Your task to perform on an android device: change your default location settings in chrome Image 0: 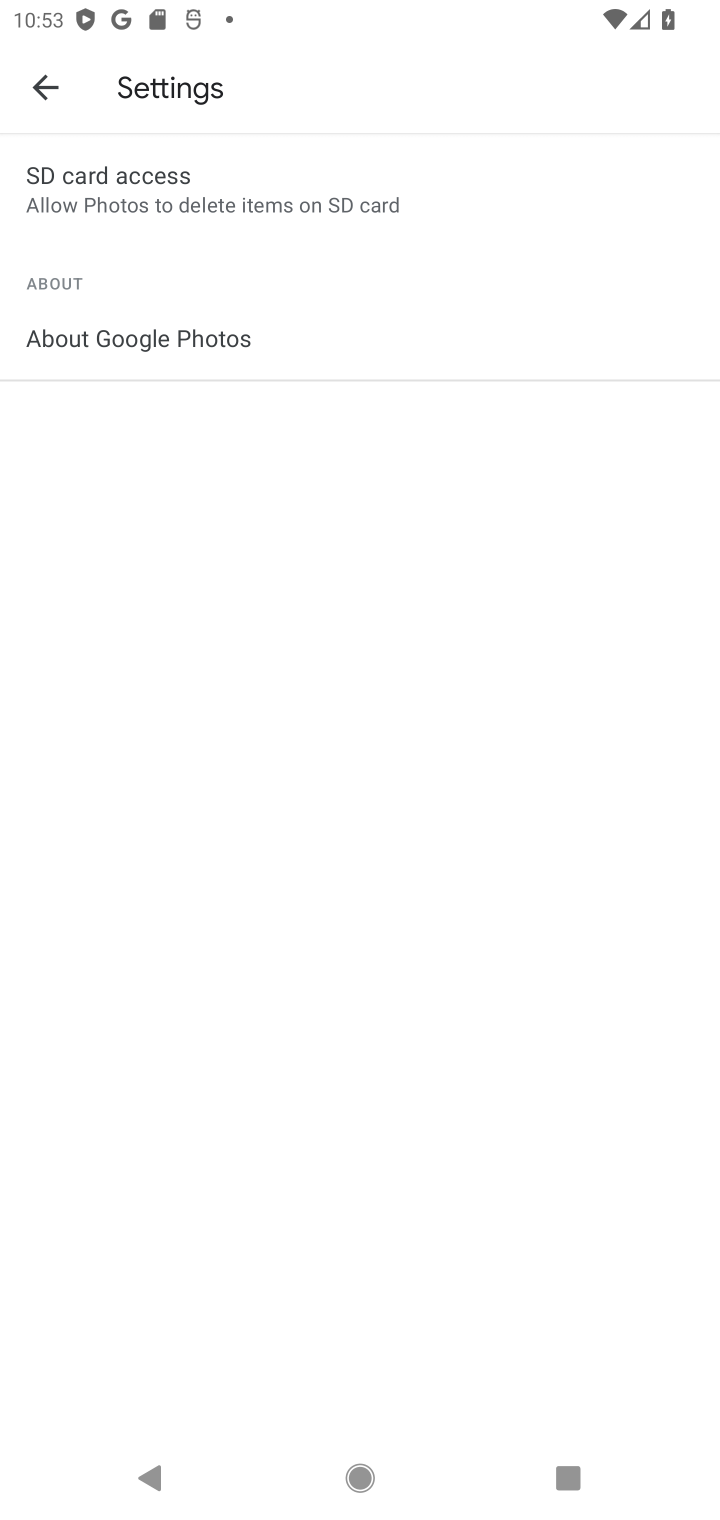
Step 0: press home button
Your task to perform on an android device: change your default location settings in chrome Image 1: 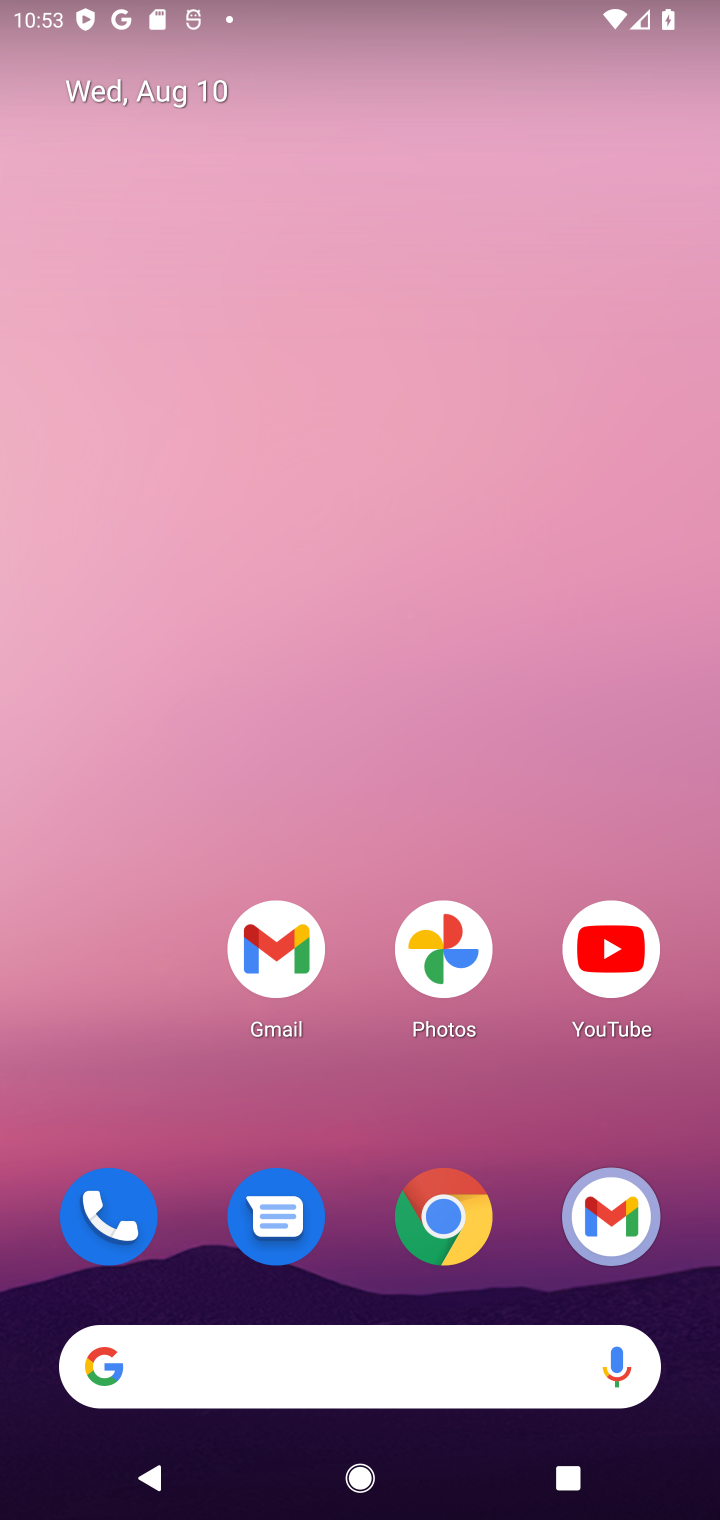
Step 1: drag from (23, 1271) to (542, 310)
Your task to perform on an android device: change your default location settings in chrome Image 2: 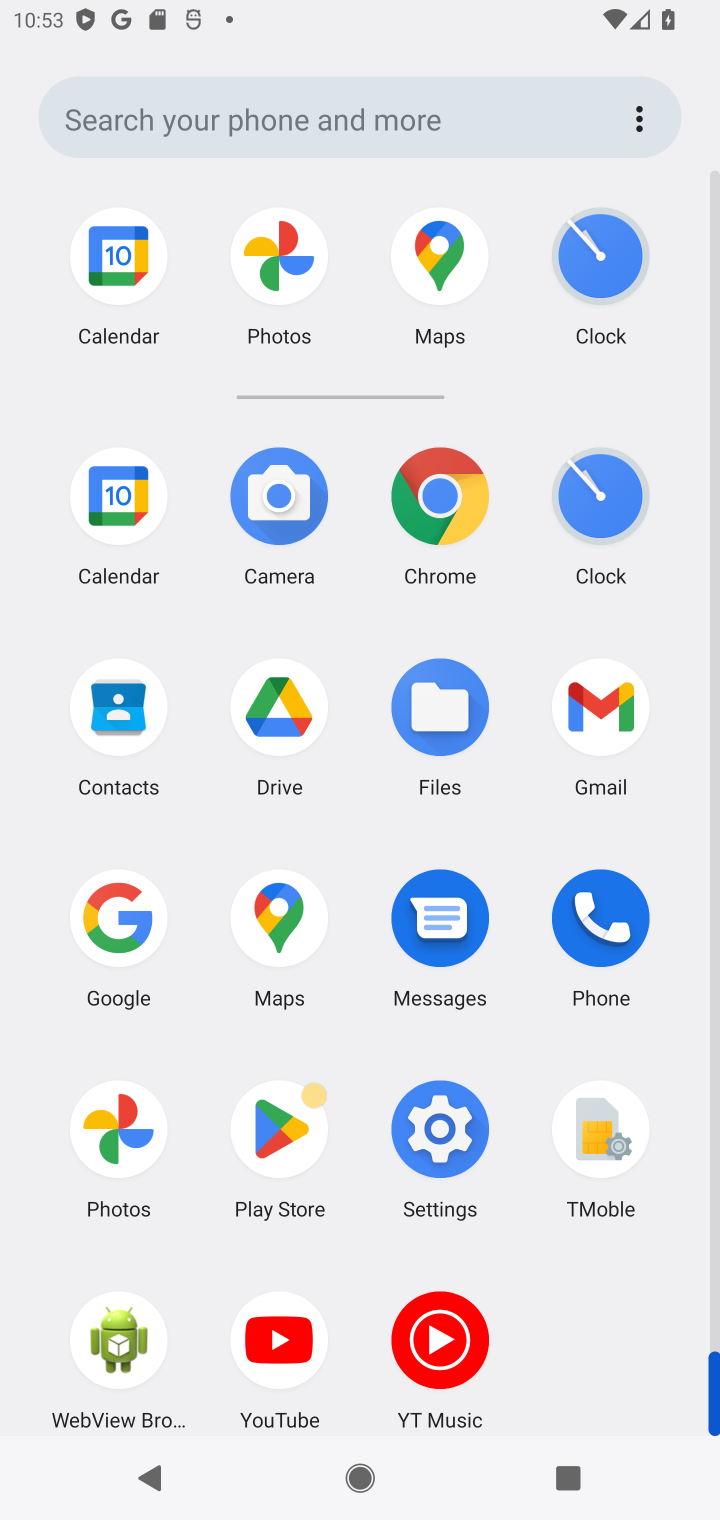
Step 2: click (434, 491)
Your task to perform on an android device: change your default location settings in chrome Image 3: 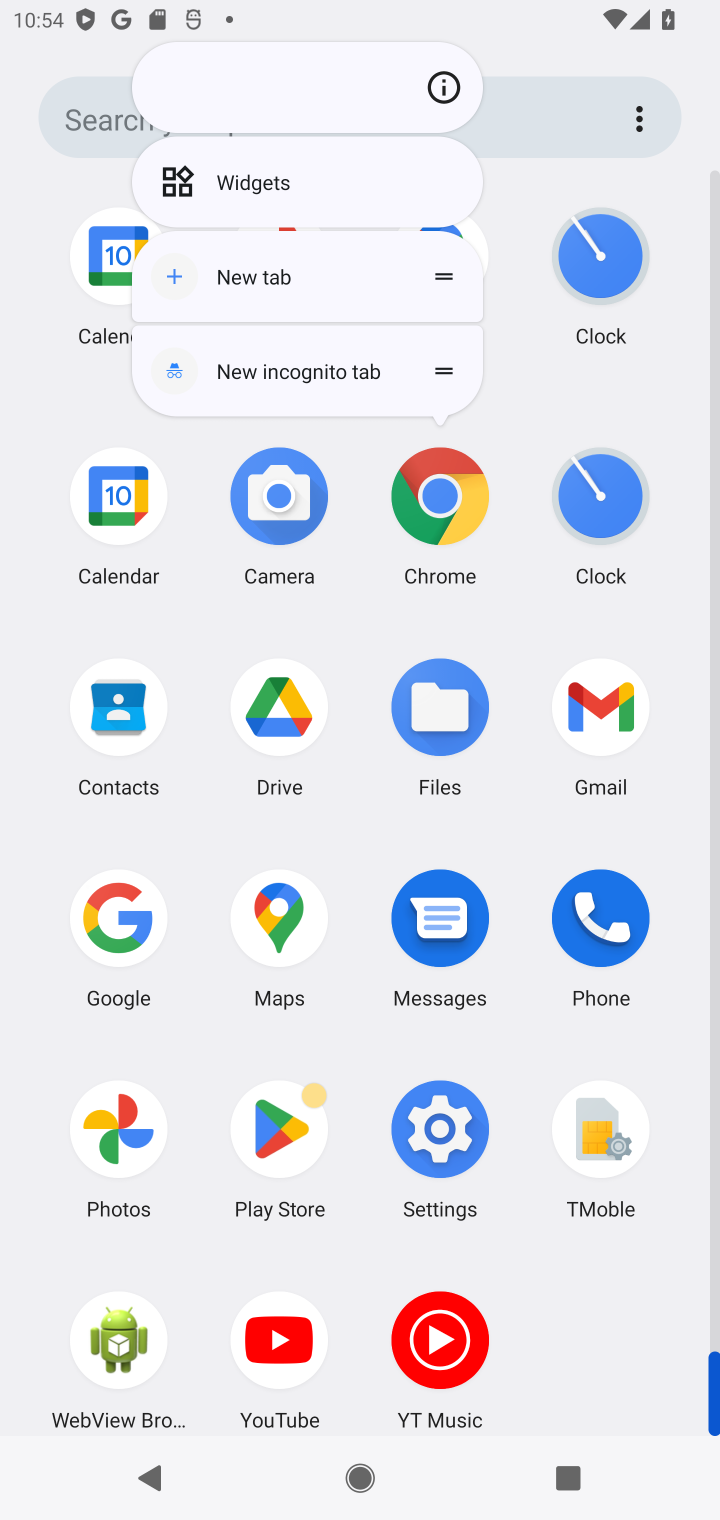
Step 3: click (442, 505)
Your task to perform on an android device: change your default location settings in chrome Image 4: 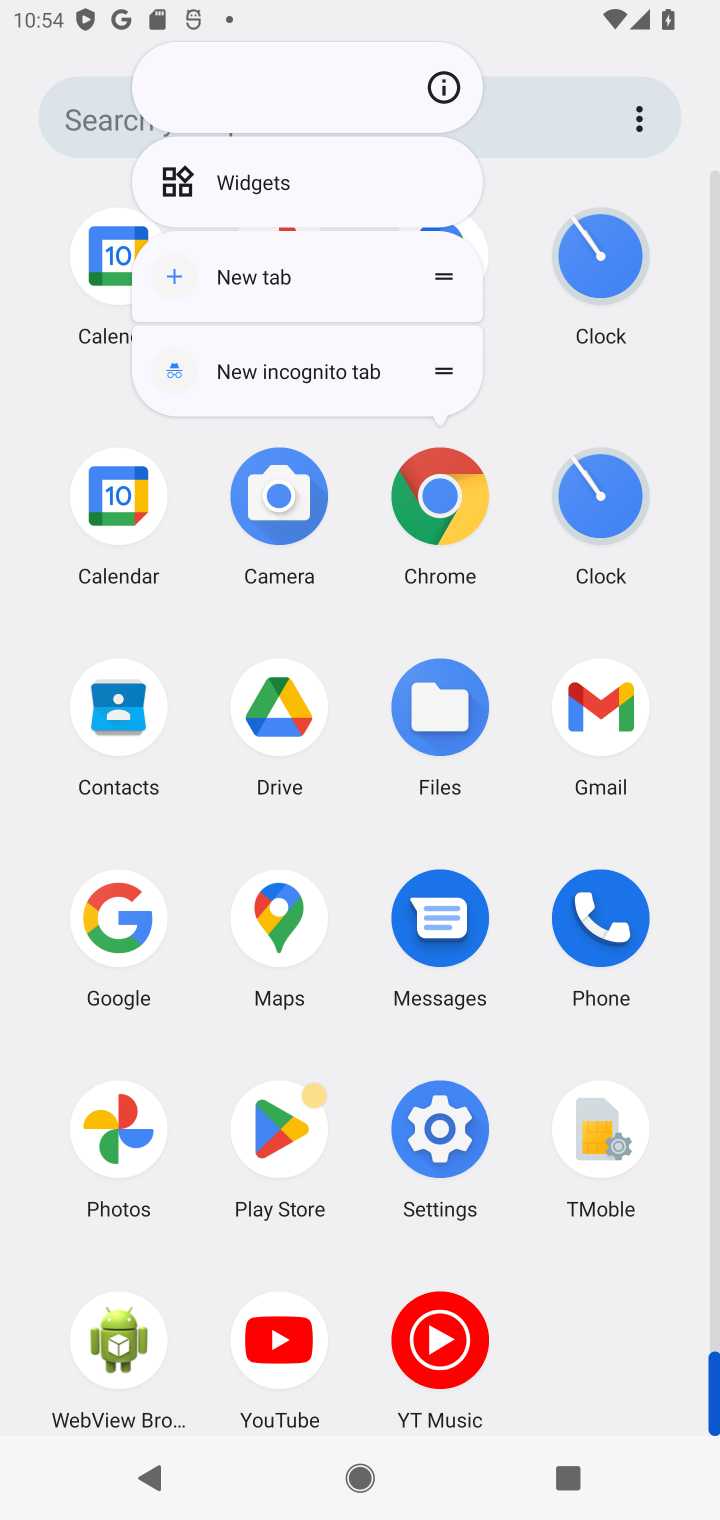
Step 4: click (442, 505)
Your task to perform on an android device: change your default location settings in chrome Image 5: 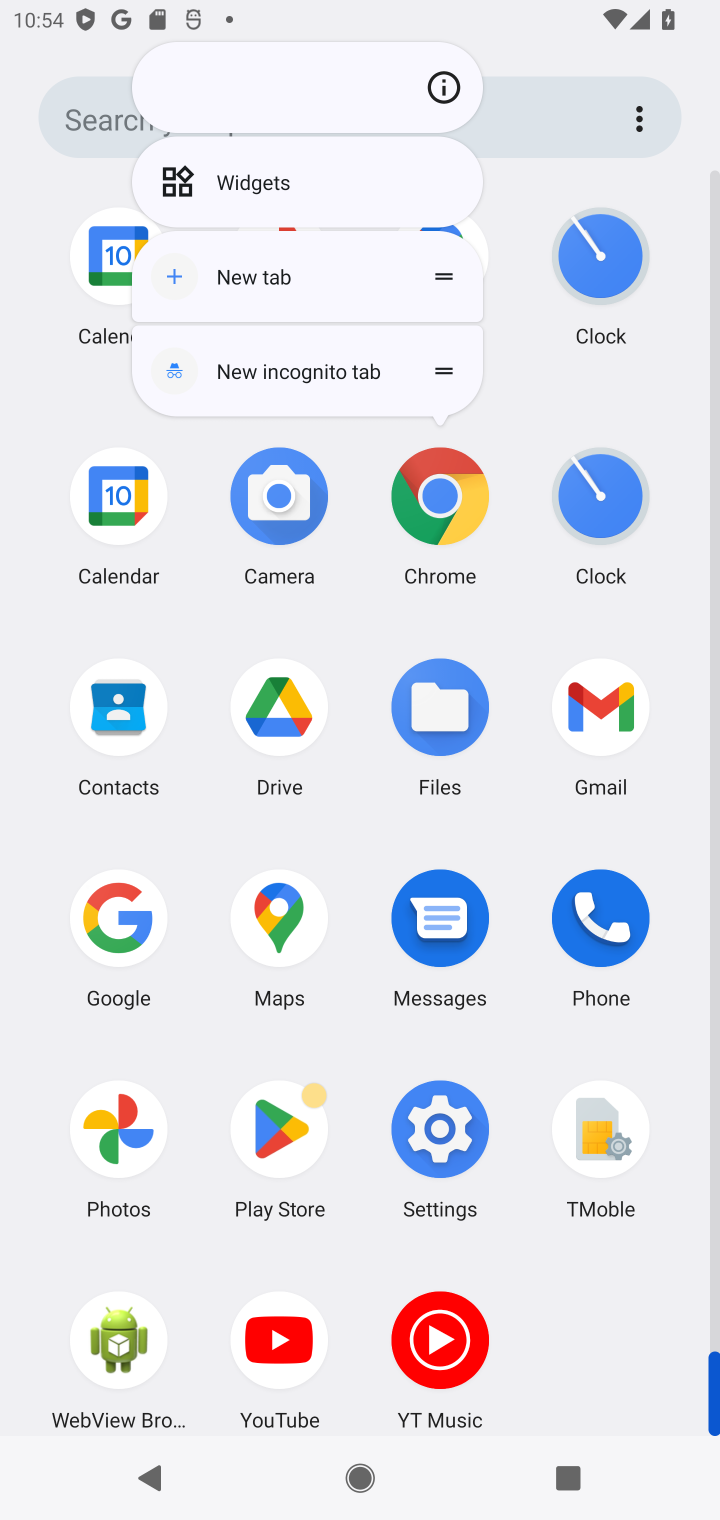
Step 5: click (476, 420)
Your task to perform on an android device: change your default location settings in chrome Image 6: 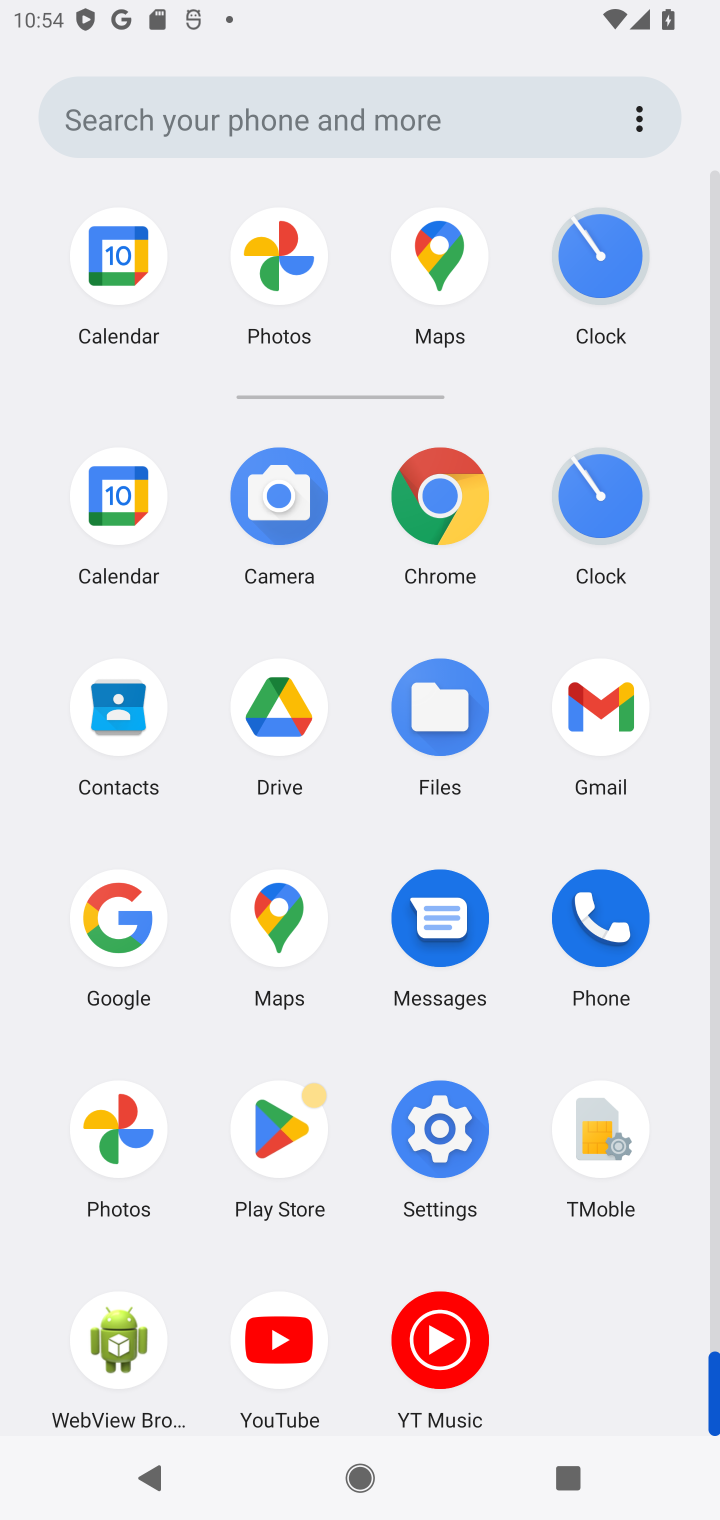
Step 6: click (465, 489)
Your task to perform on an android device: change your default location settings in chrome Image 7: 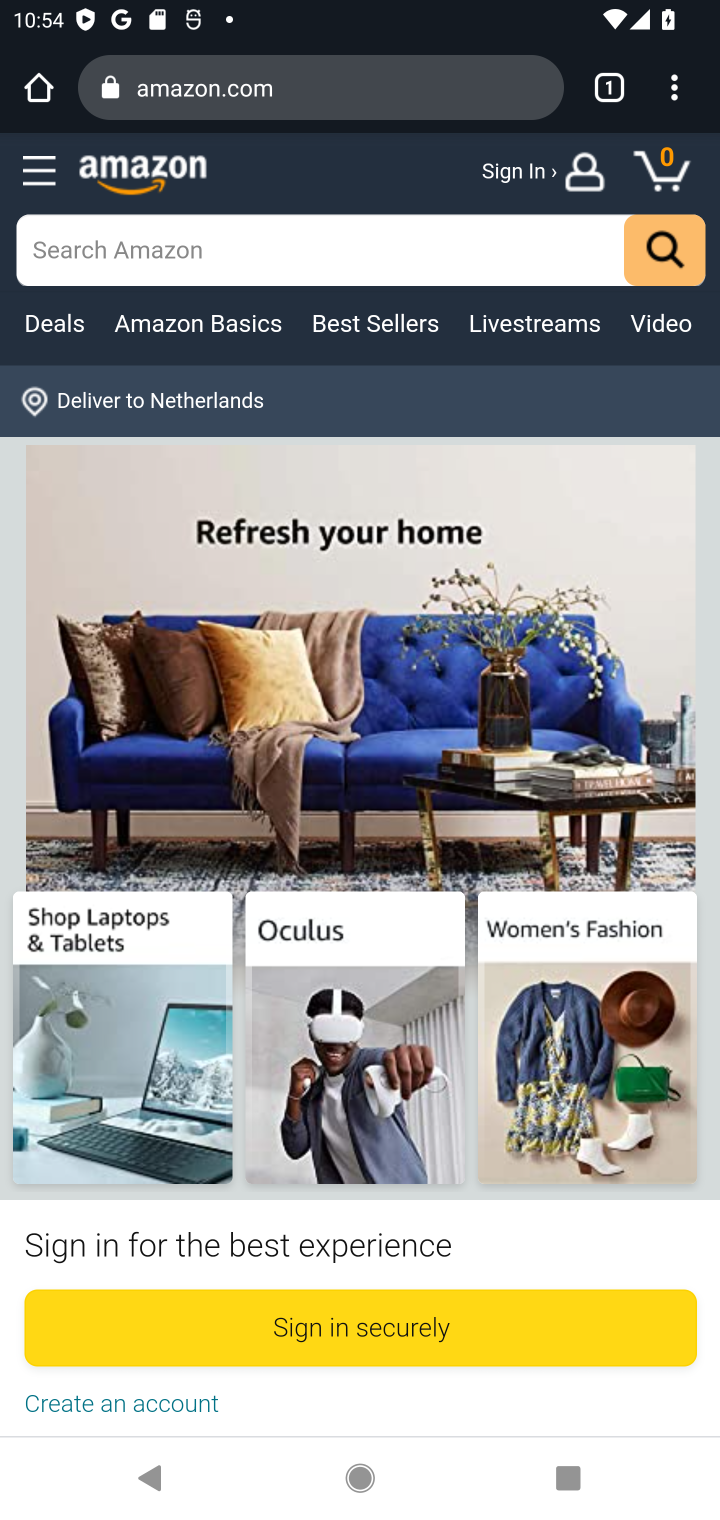
Step 7: click (672, 96)
Your task to perform on an android device: change your default location settings in chrome Image 8: 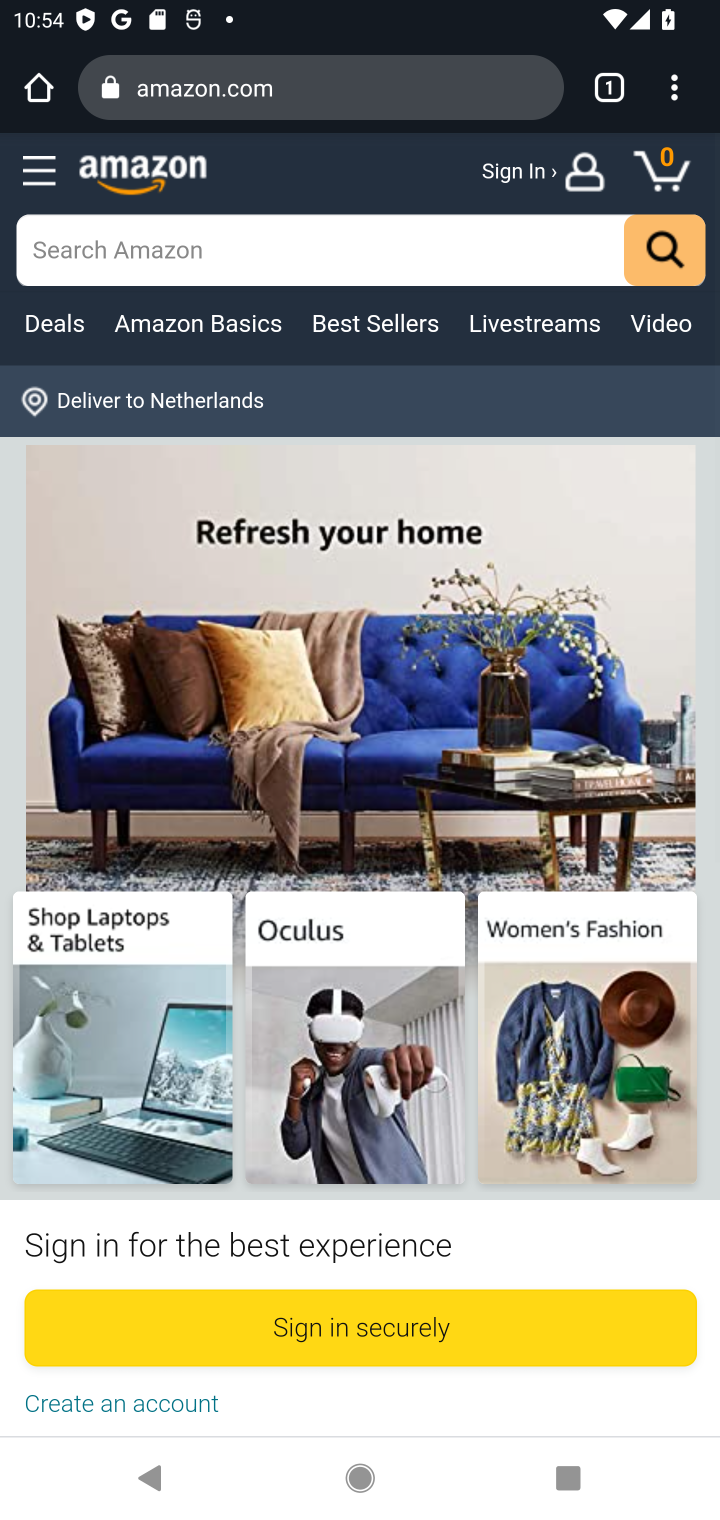
Step 8: click (672, 96)
Your task to perform on an android device: change your default location settings in chrome Image 9: 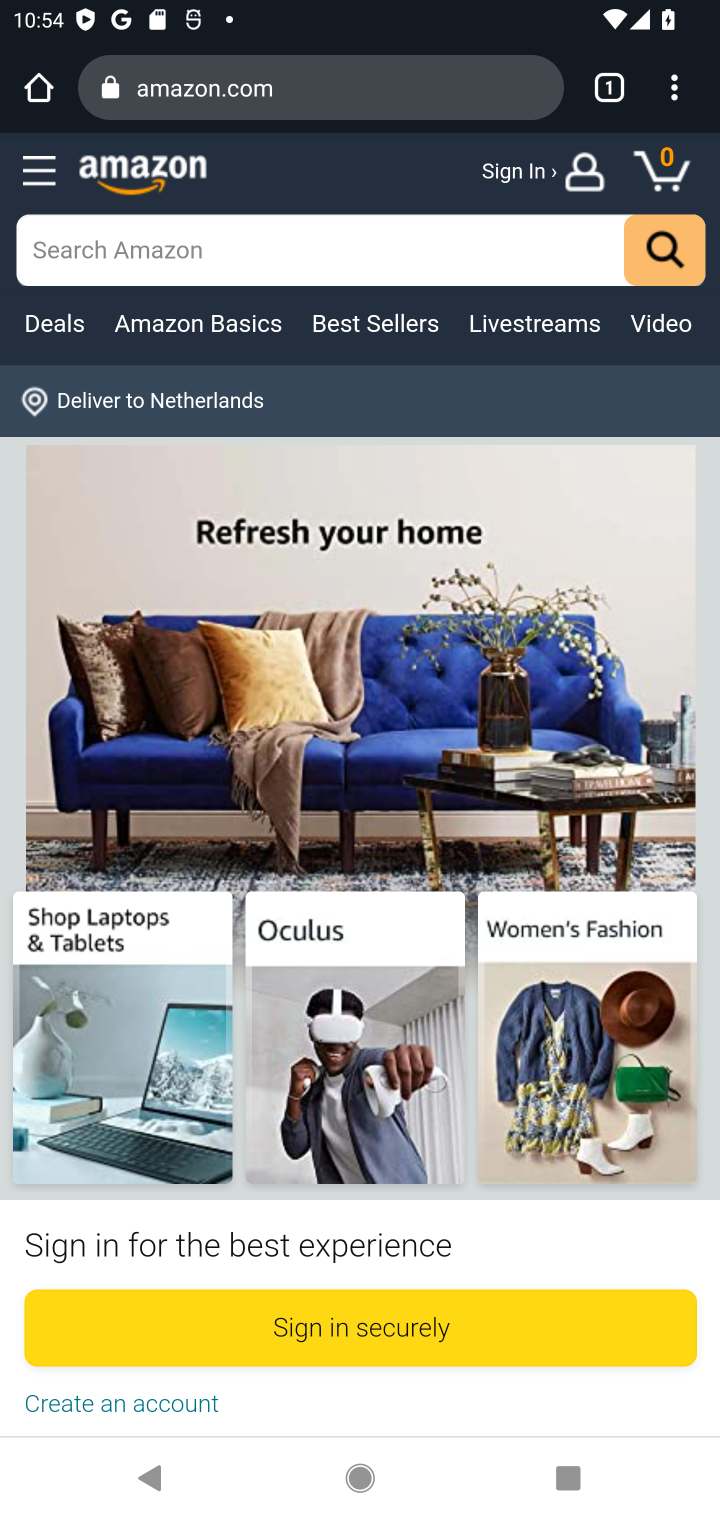
Step 9: click (674, 94)
Your task to perform on an android device: change your default location settings in chrome Image 10: 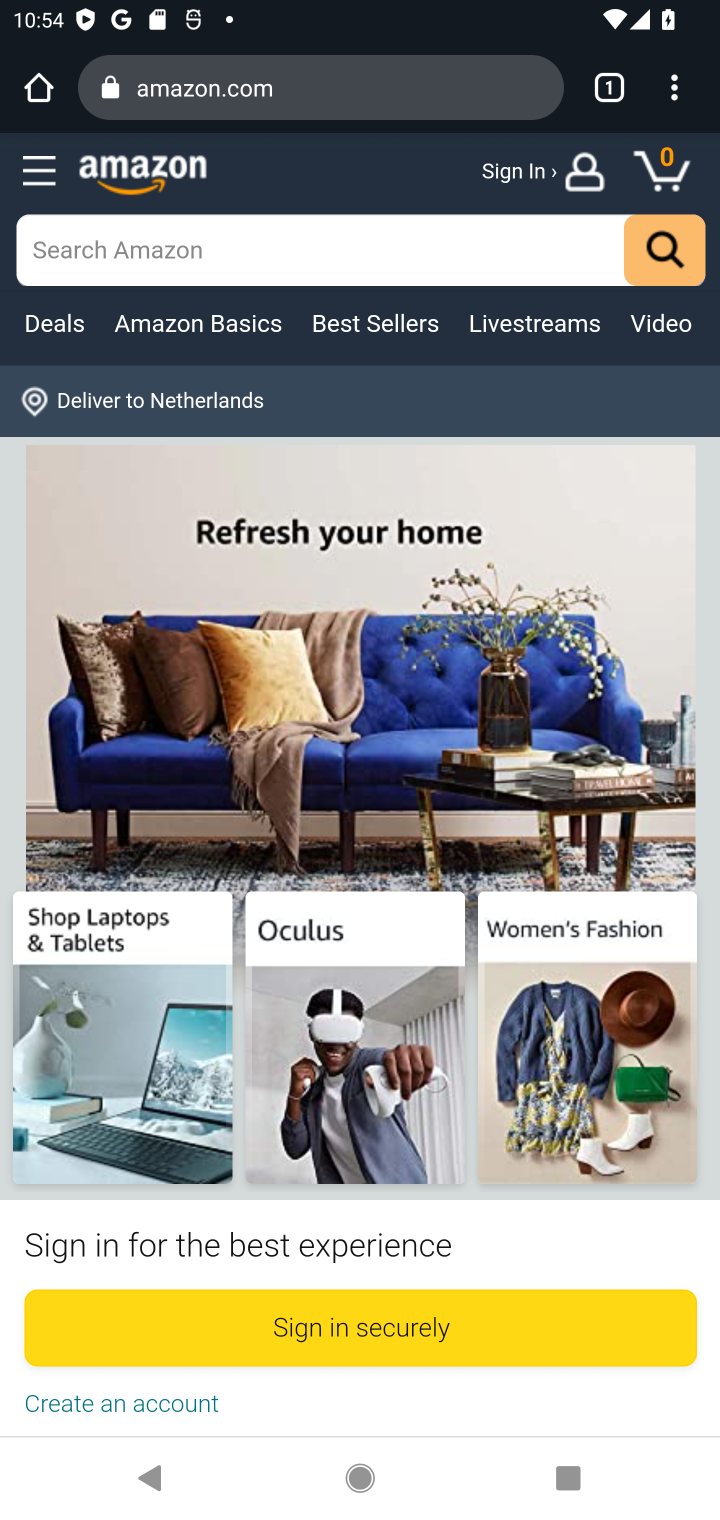
Step 10: click (674, 94)
Your task to perform on an android device: change your default location settings in chrome Image 11: 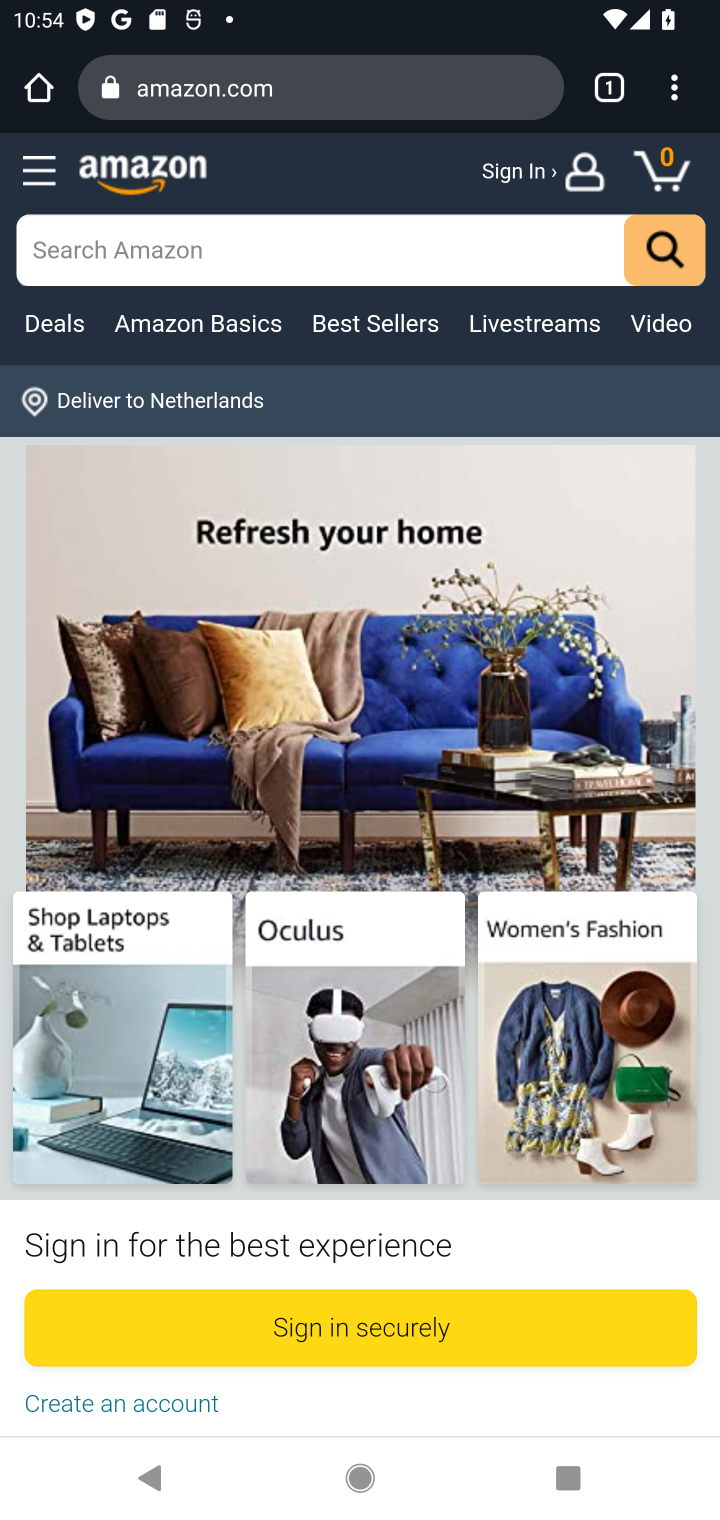
Step 11: click (681, 95)
Your task to perform on an android device: change your default location settings in chrome Image 12: 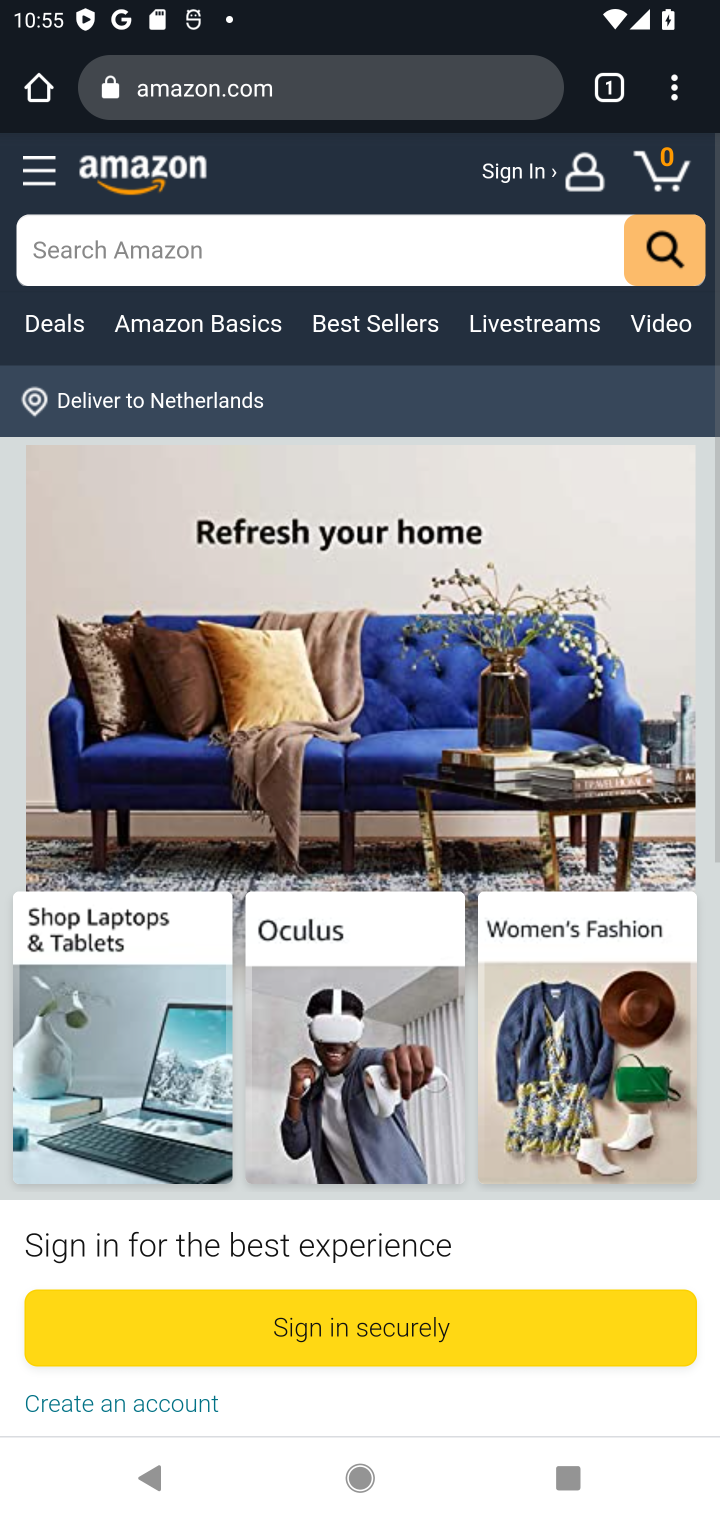
Step 12: click (681, 95)
Your task to perform on an android device: change your default location settings in chrome Image 13: 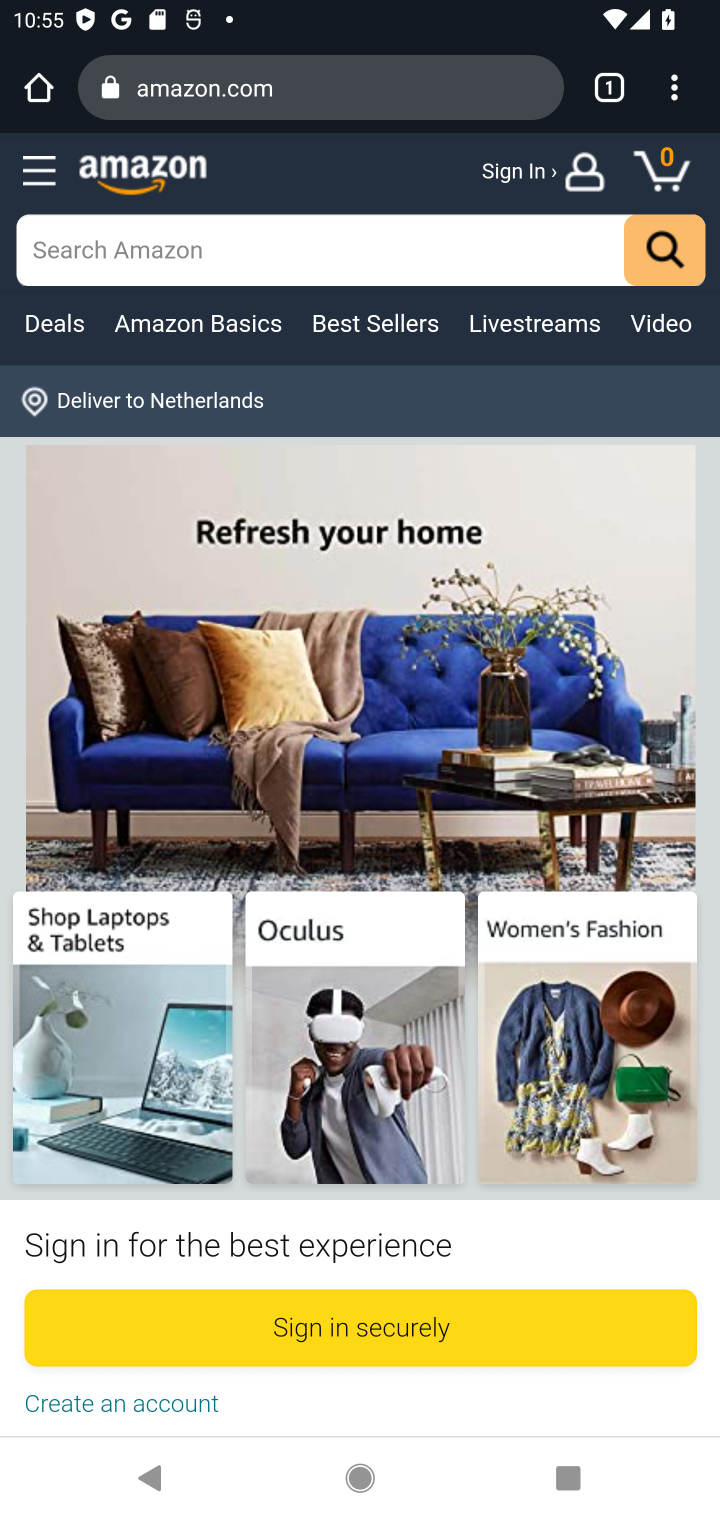
Step 13: click (675, 96)
Your task to perform on an android device: change your default location settings in chrome Image 14: 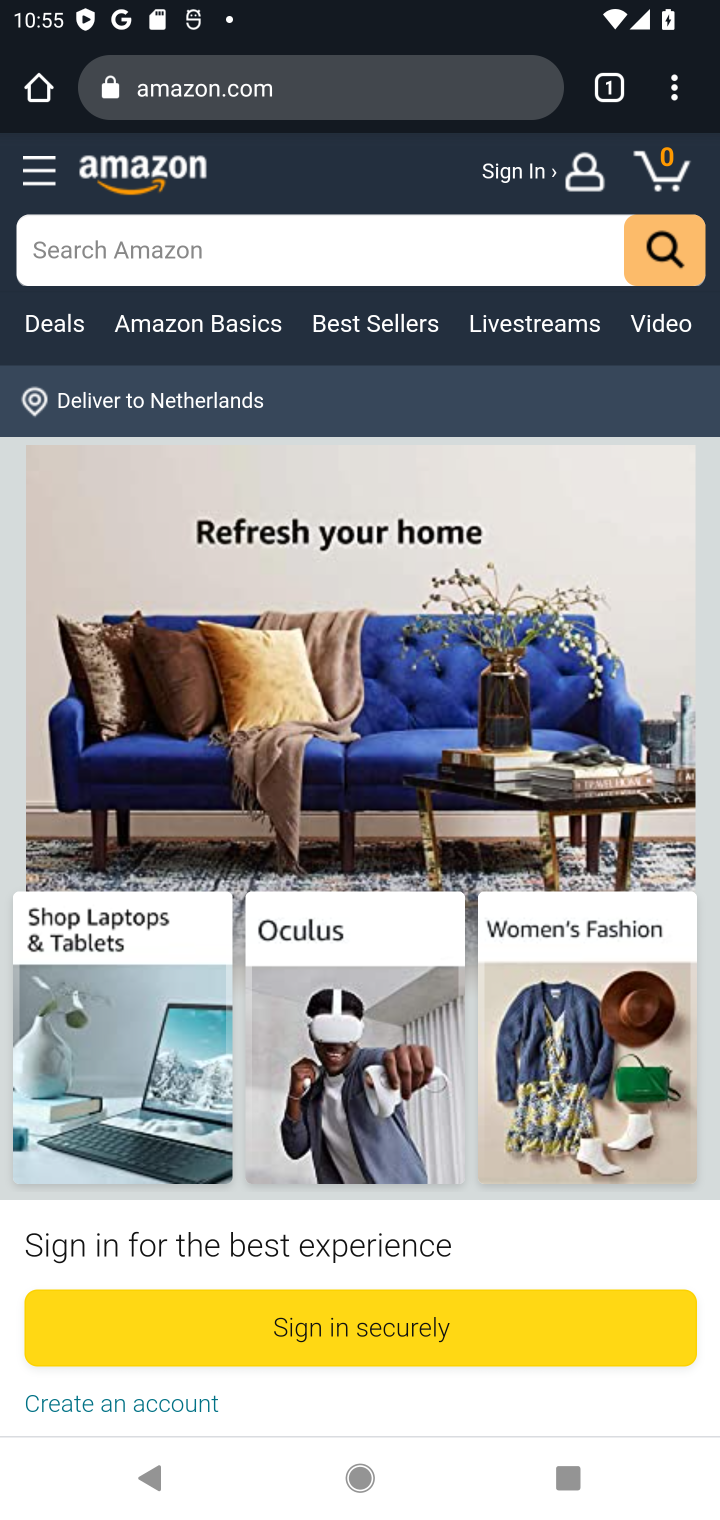
Step 14: task complete